Your task to perform on an android device: turn on priority inbox in the gmail app Image 0: 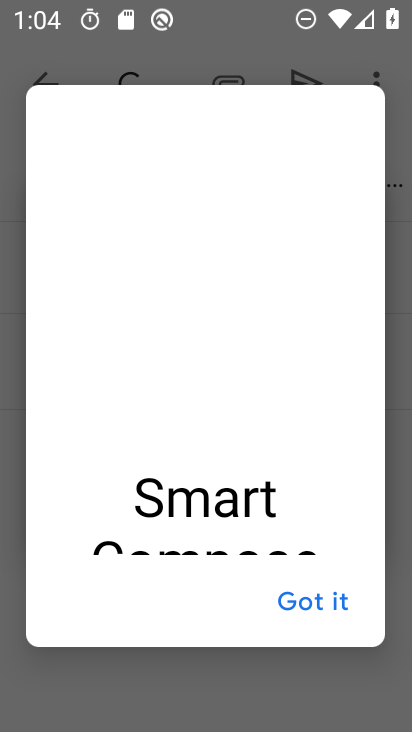
Step 0: press home button
Your task to perform on an android device: turn on priority inbox in the gmail app Image 1: 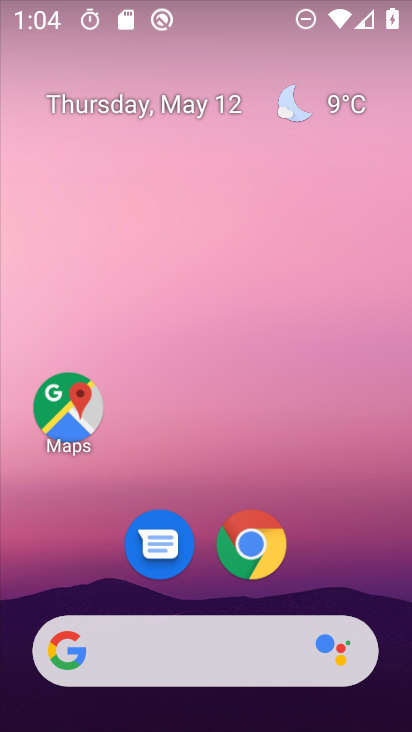
Step 1: drag from (216, 723) to (207, 199)
Your task to perform on an android device: turn on priority inbox in the gmail app Image 2: 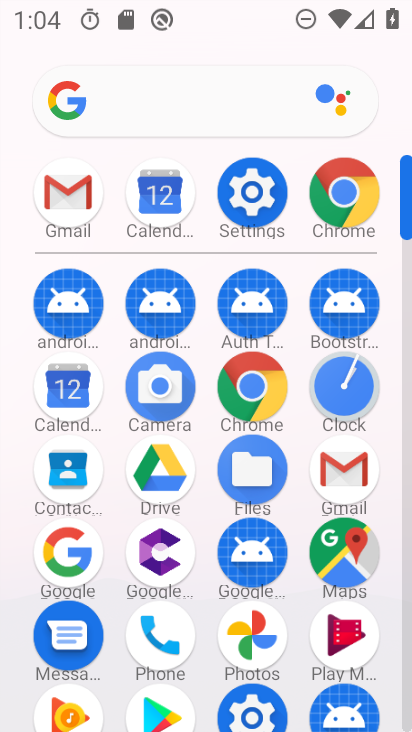
Step 2: click (336, 472)
Your task to perform on an android device: turn on priority inbox in the gmail app Image 3: 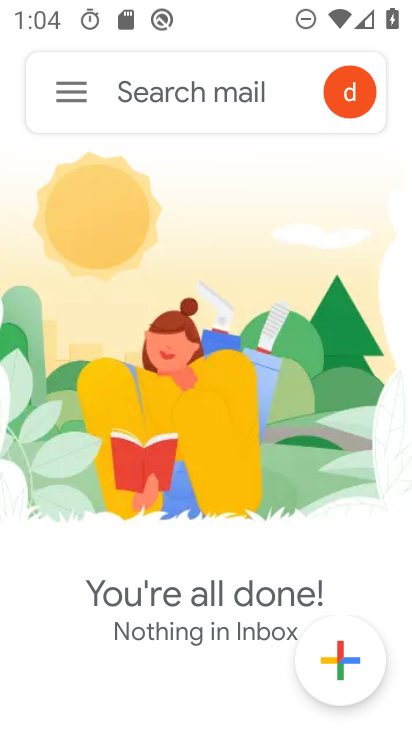
Step 3: click (67, 87)
Your task to perform on an android device: turn on priority inbox in the gmail app Image 4: 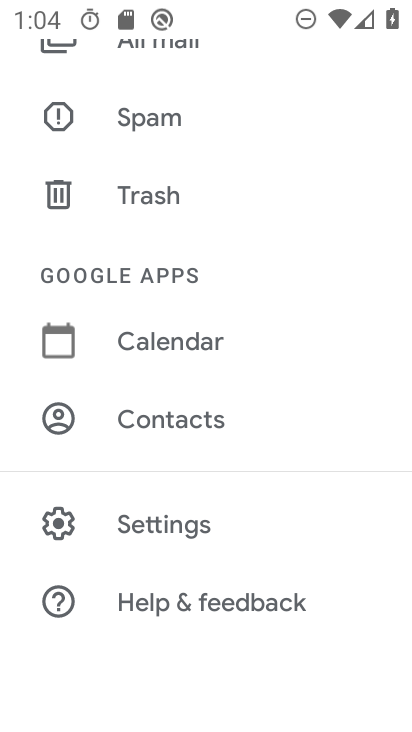
Step 4: click (169, 517)
Your task to perform on an android device: turn on priority inbox in the gmail app Image 5: 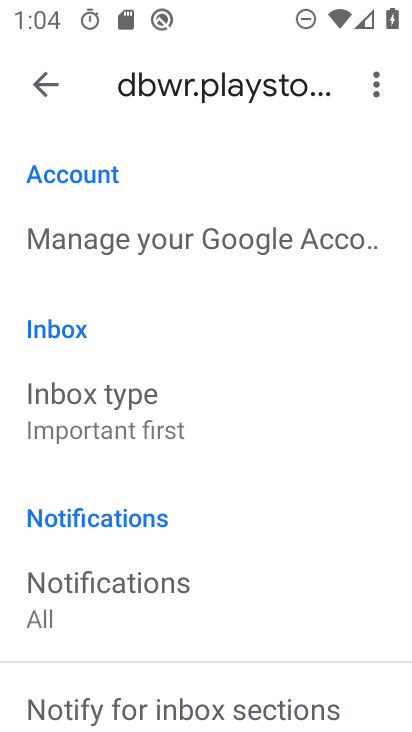
Step 5: drag from (182, 201) to (198, 559)
Your task to perform on an android device: turn on priority inbox in the gmail app Image 6: 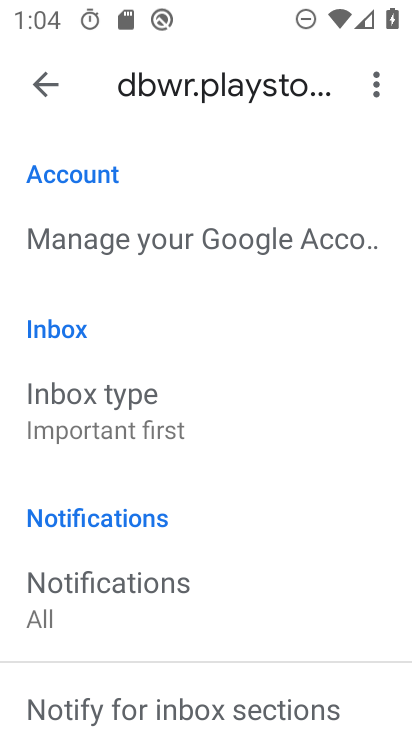
Step 6: click (102, 413)
Your task to perform on an android device: turn on priority inbox in the gmail app Image 7: 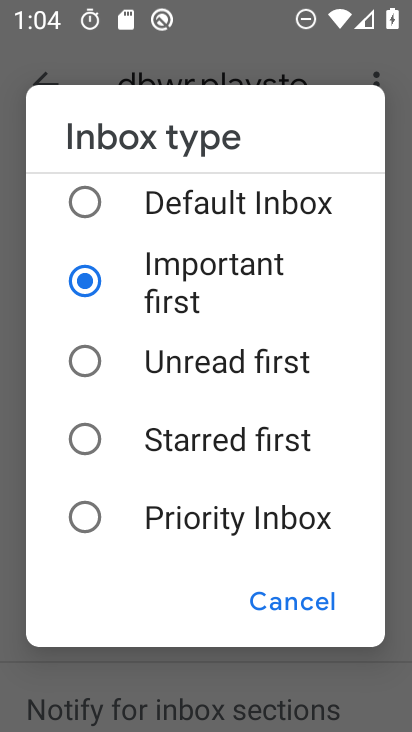
Step 7: drag from (169, 192) to (194, 366)
Your task to perform on an android device: turn on priority inbox in the gmail app Image 8: 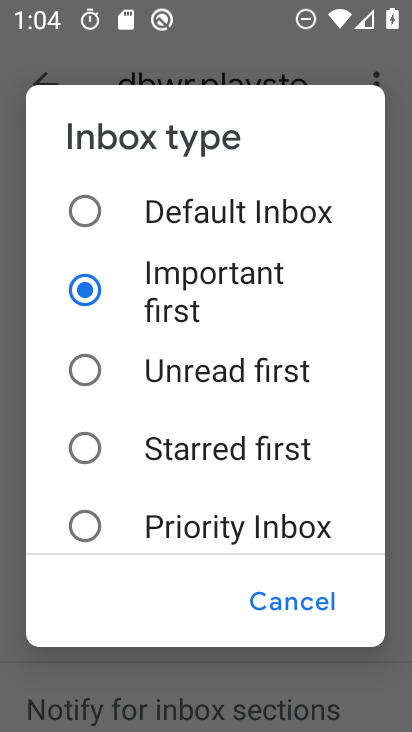
Step 8: click (88, 521)
Your task to perform on an android device: turn on priority inbox in the gmail app Image 9: 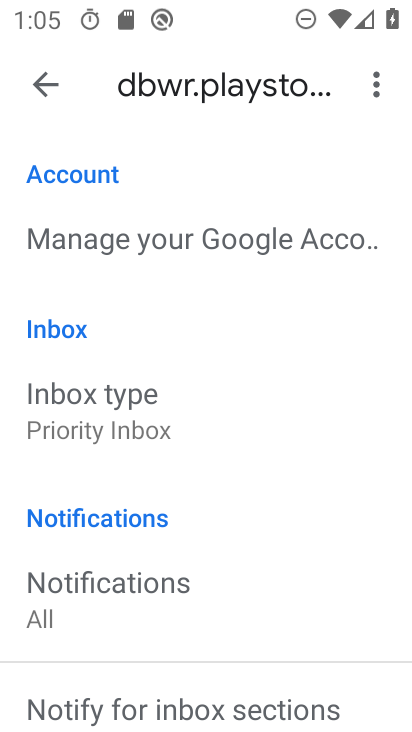
Step 9: task complete